Your task to perform on an android device: What's the weather? Image 0: 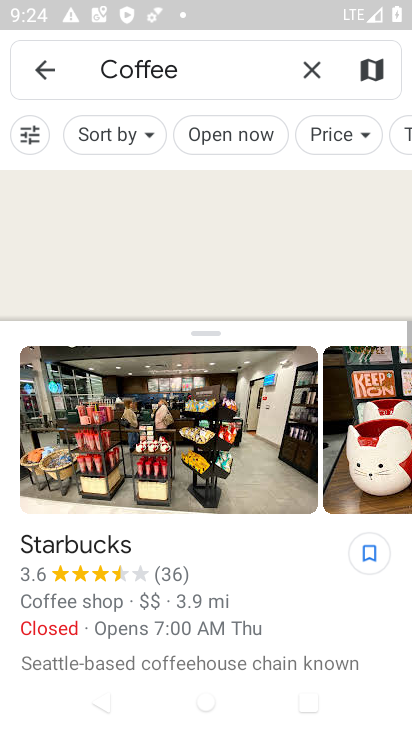
Step 0: press home button
Your task to perform on an android device: What's the weather? Image 1: 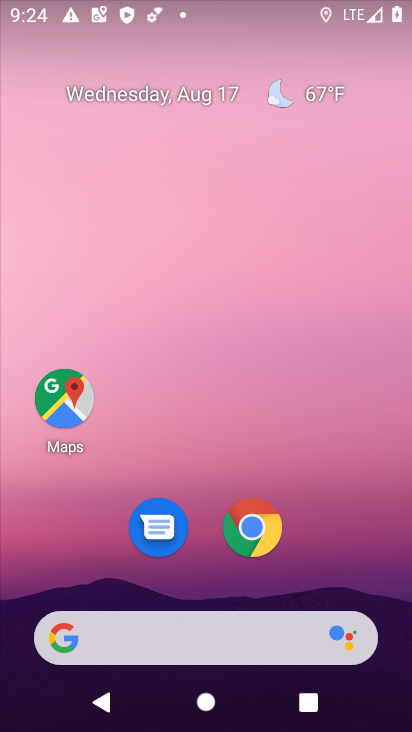
Step 1: click (338, 102)
Your task to perform on an android device: What's the weather? Image 2: 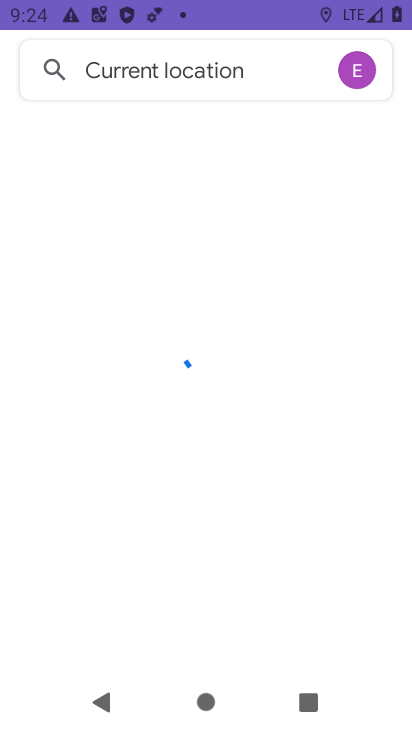
Step 2: task complete